Your task to perform on an android device: turn pop-ups on in chrome Image 0: 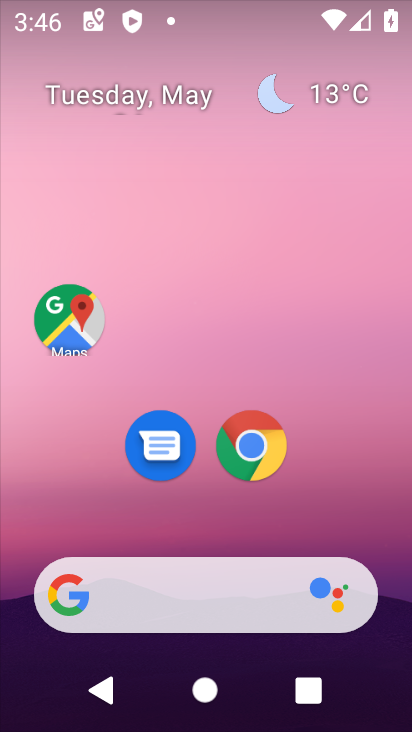
Step 0: press home button
Your task to perform on an android device: turn pop-ups on in chrome Image 1: 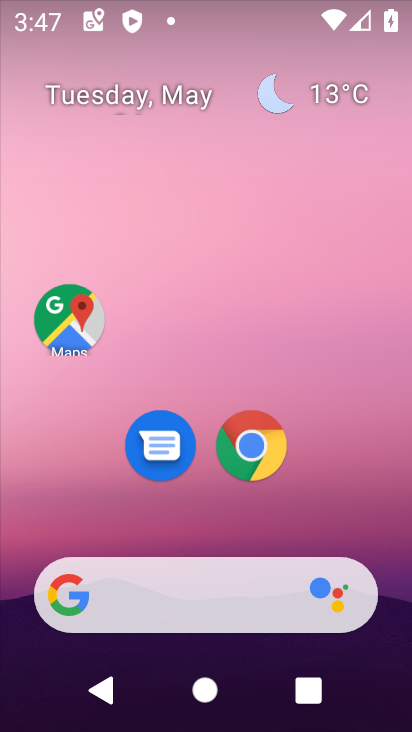
Step 1: click (251, 439)
Your task to perform on an android device: turn pop-ups on in chrome Image 2: 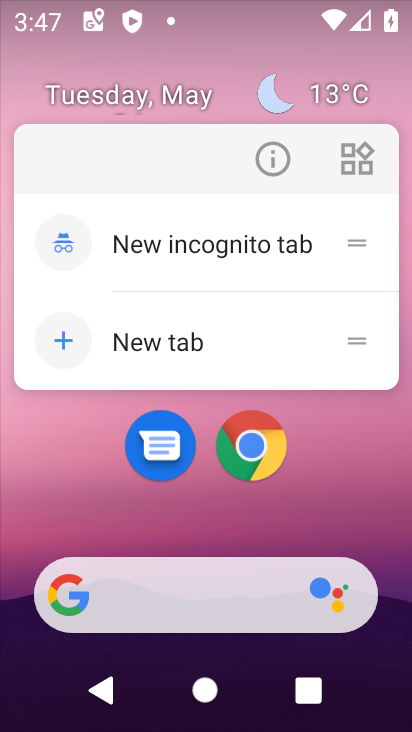
Step 2: click (247, 437)
Your task to perform on an android device: turn pop-ups on in chrome Image 3: 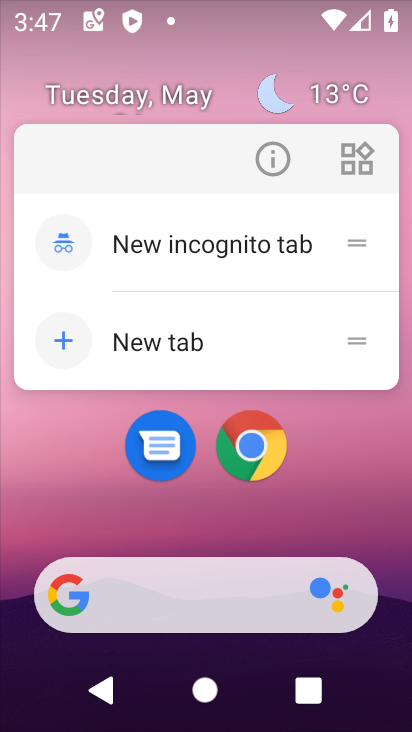
Step 3: click (249, 436)
Your task to perform on an android device: turn pop-ups on in chrome Image 4: 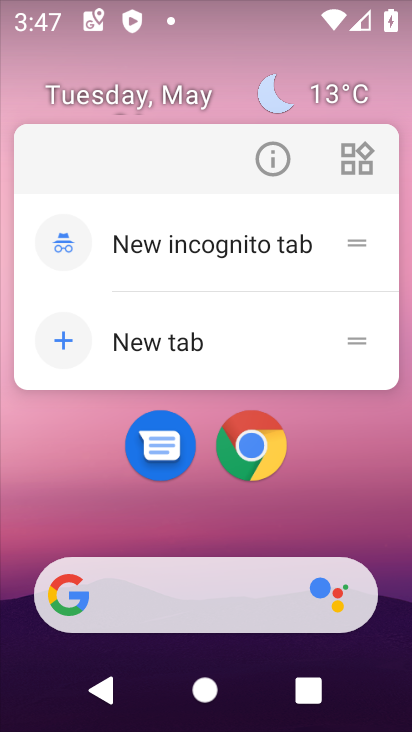
Step 4: drag from (305, 533) to (291, 77)
Your task to perform on an android device: turn pop-ups on in chrome Image 5: 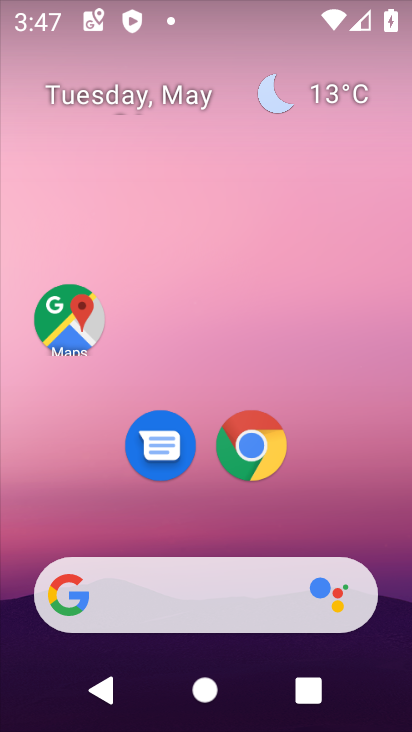
Step 5: drag from (299, 537) to (240, 0)
Your task to perform on an android device: turn pop-ups on in chrome Image 6: 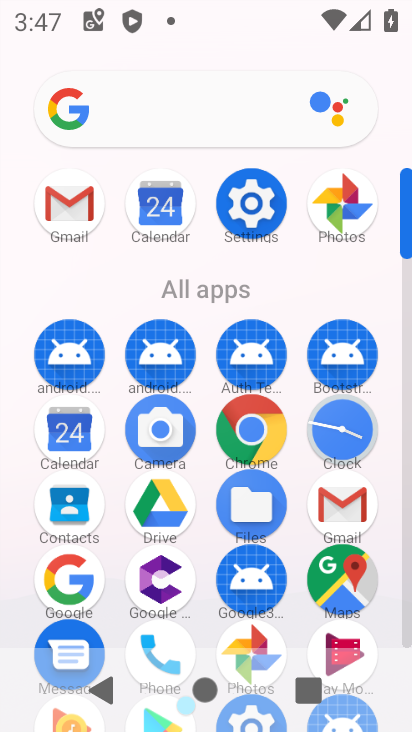
Step 6: click (248, 421)
Your task to perform on an android device: turn pop-ups on in chrome Image 7: 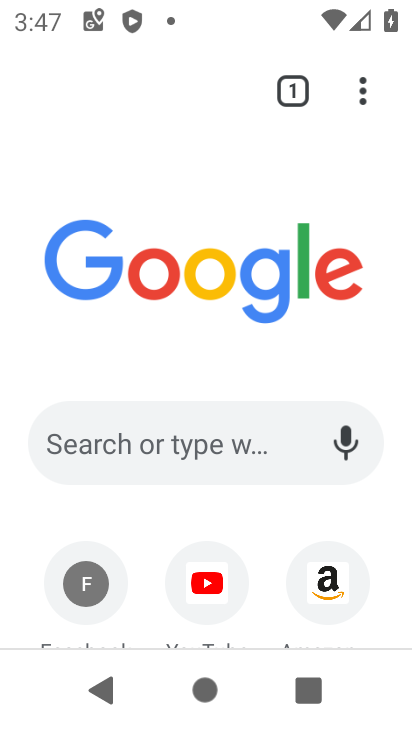
Step 7: click (356, 78)
Your task to perform on an android device: turn pop-ups on in chrome Image 8: 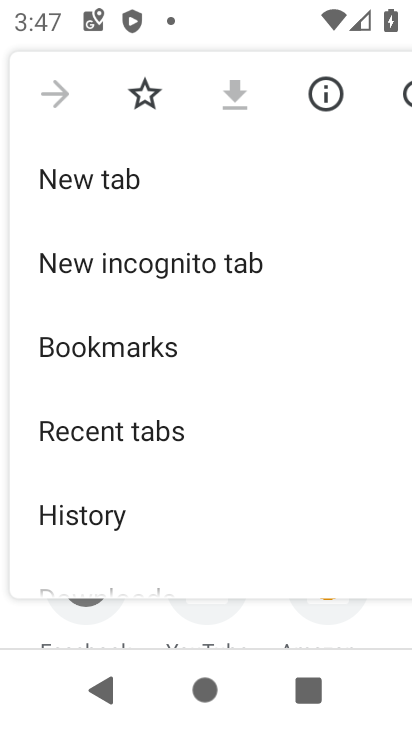
Step 8: drag from (168, 543) to (184, 81)
Your task to perform on an android device: turn pop-ups on in chrome Image 9: 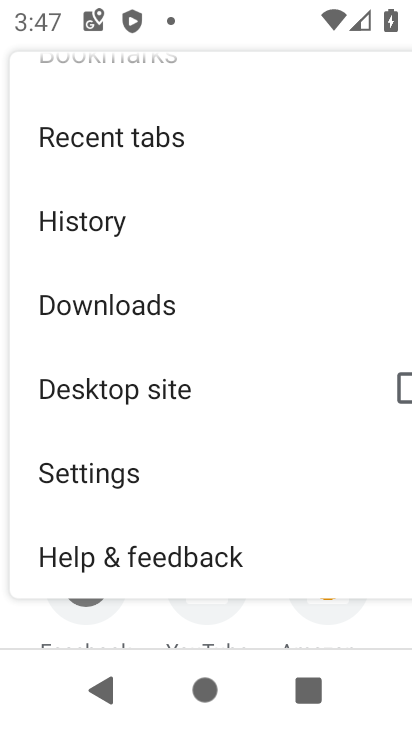
Step 9: click (151, 473)
Your task to perform on an android device: turn pop-ups on in chrome Image 10: 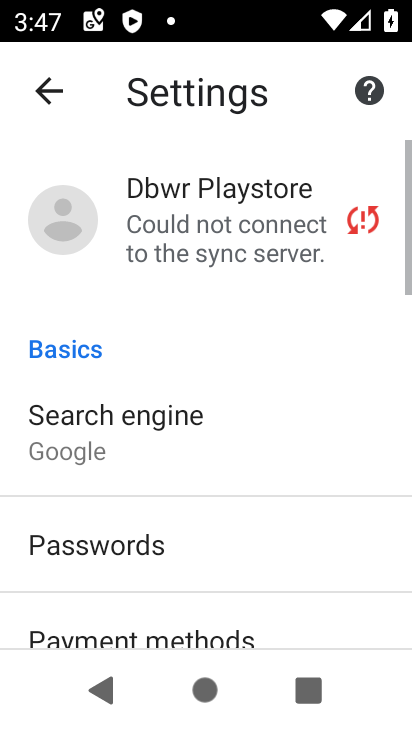
Step 10: drag from (265, 621) to (273, 124)
Your task to perform on an android device: turn pop-ups on in chrome Image 11: 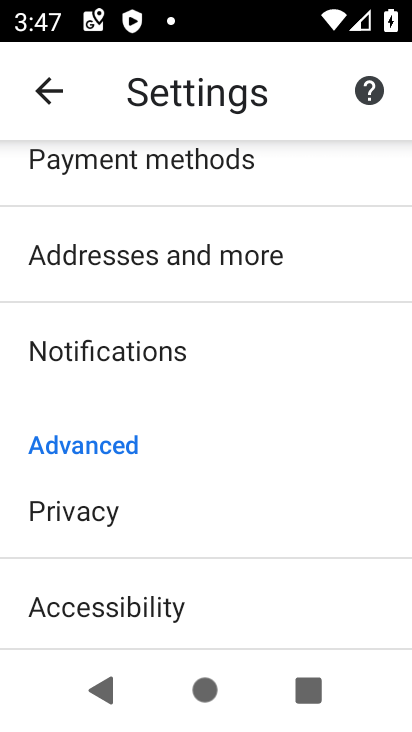
Step 11: drag from (221, 597) to (264, 179)
Your task to perform on an android device: turn pop-ups on in chrome Image 12: 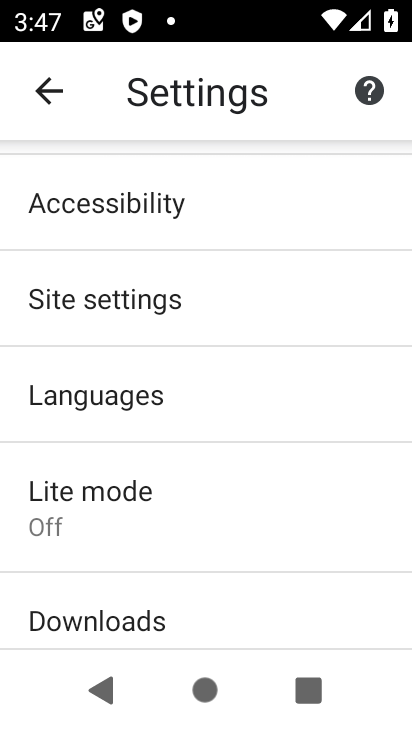
Step 12: click (196, 300)
Your task to perform on an android device: turn pop-ups on in chrome Image 13: 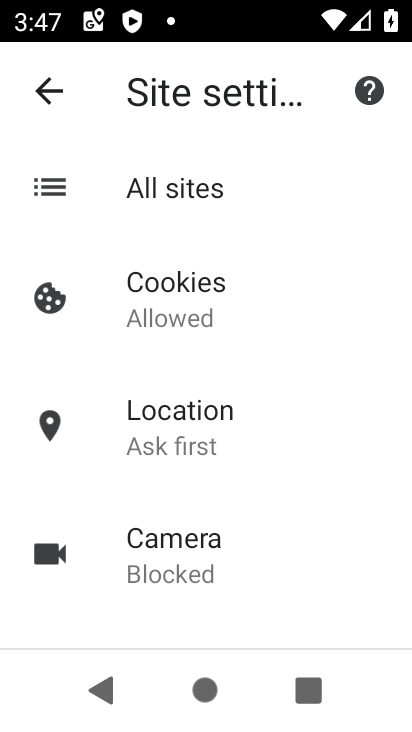
Step 13: drag from (90, 588) to (92, 175)
Your task to perform on an android device: turn pop-ups on in chrome Image 14: 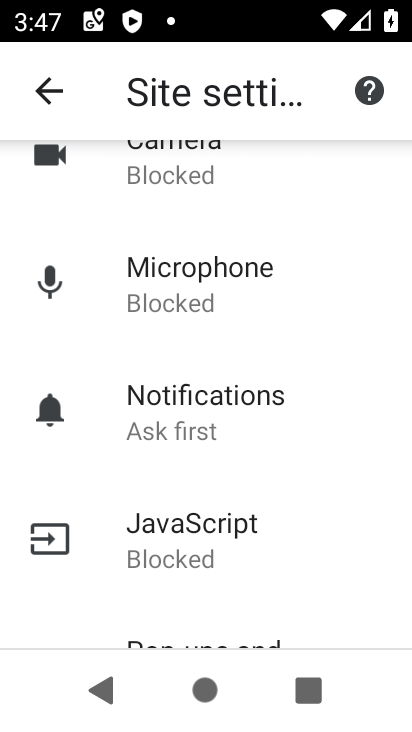
Step 14: drag from (109, 625) to (105, 172)
Your task to perform on an android device: turn pop-ups on in chrome Image 15: 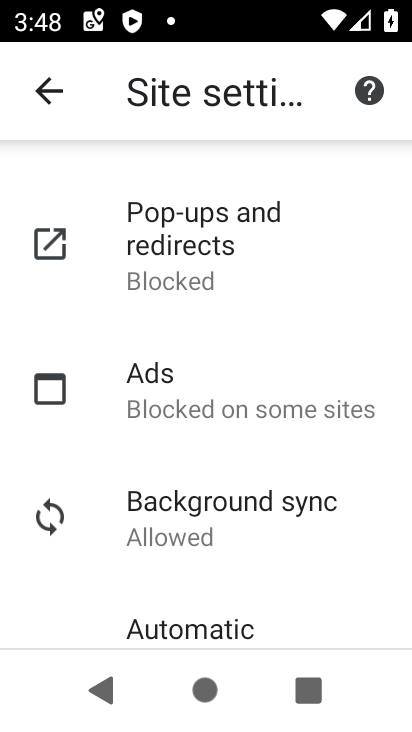
Step 15: click (86, 239)
Your task to perform on an android device: turn pop-ups on in chrome Image 16: 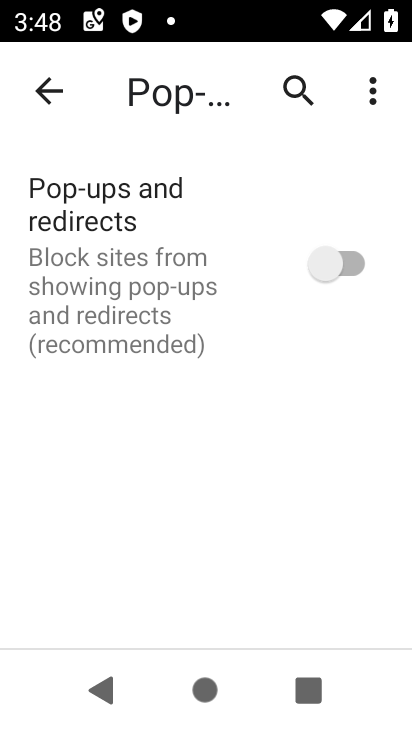
Step 16: click (345, 260)
Your task to perform on an android device: turn pop-ups on in chrome Image 17: 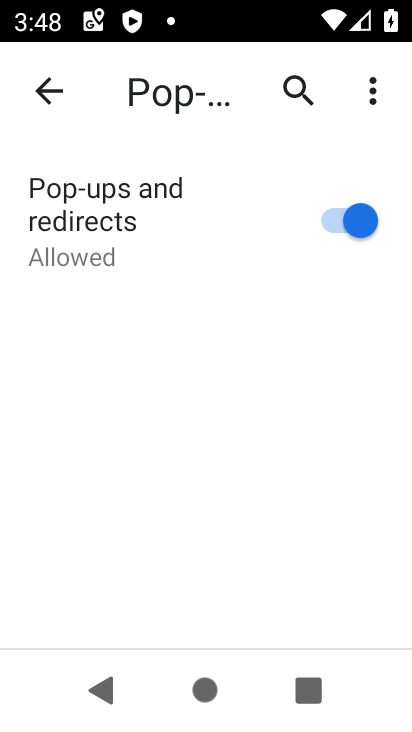
Step 17: task complete